Your task to perform on an android device: check data usage Image 0: 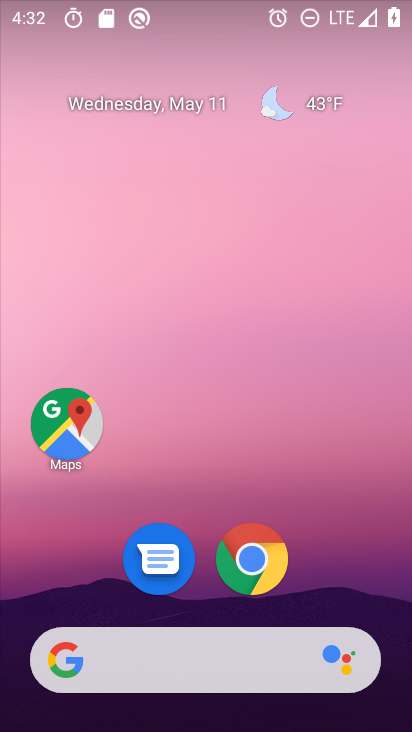
Step 0: drag from (345, 546) to (218, 127)
Your task to perform on an android device: check data usage Image 1: 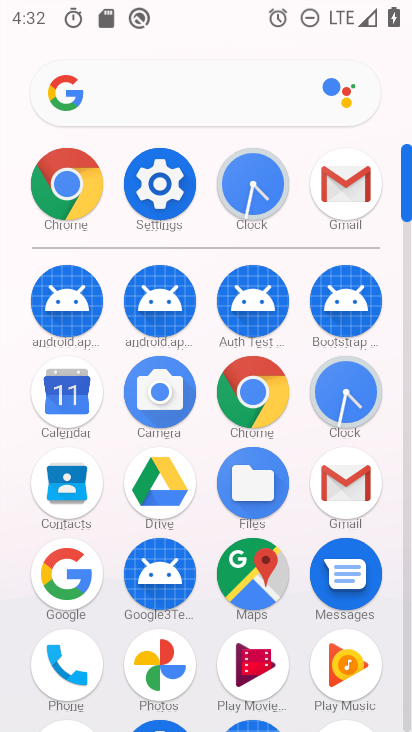
Step 1: click (171, 170)
Your task to perform on an android device: check data usage Image 2: 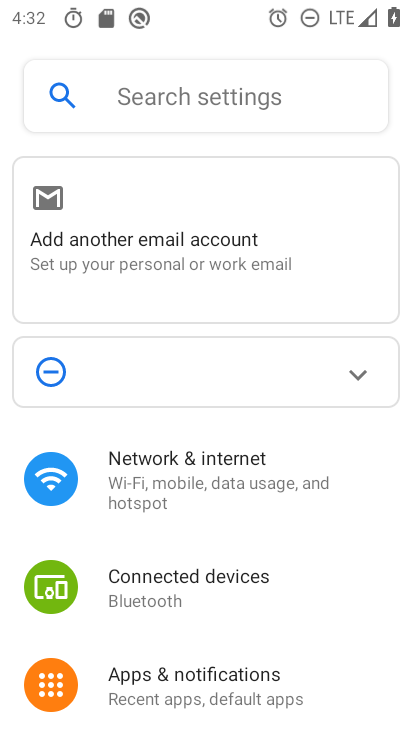
Step 2: click (207, 486)
Your task to perform on an android device: check data usage Image 3: 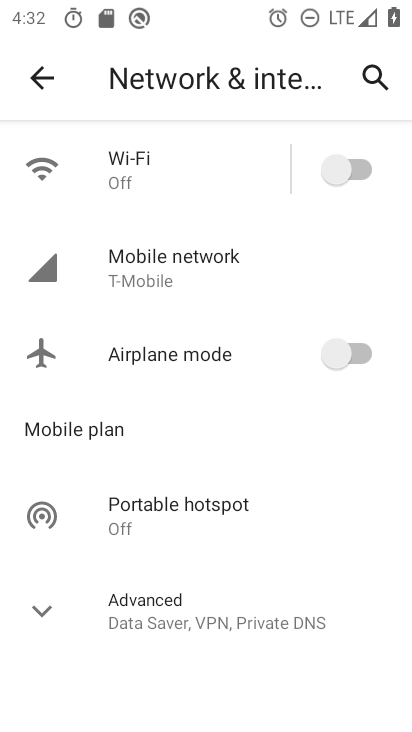
Step 3: click (178, 265)
Your task to perform on an android device: check data usage Image 4: 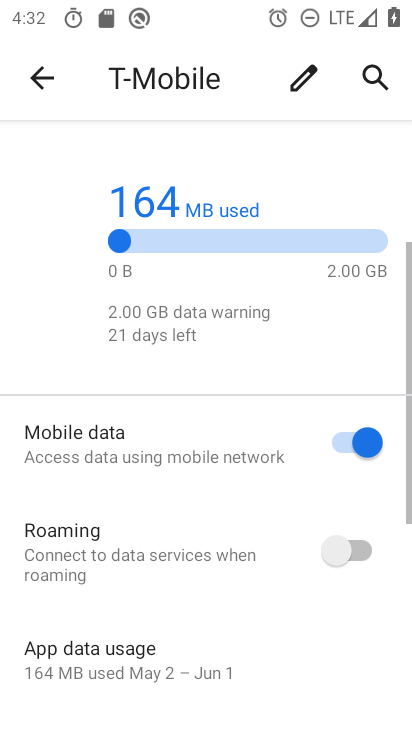
Step 4: task complete